Your task to perform on an android device: read, delete, or share a saved page in the chrome app Image 0: 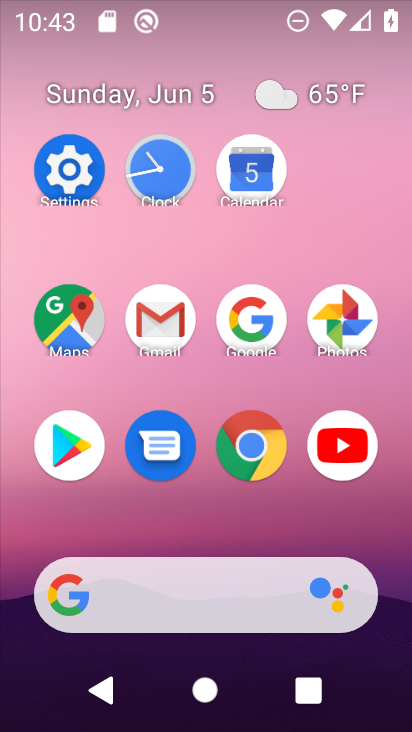
Step 0: click (252, 442)
Your task to perform on an android device: read, delete, or share a saved page in the chrome app Image 1: 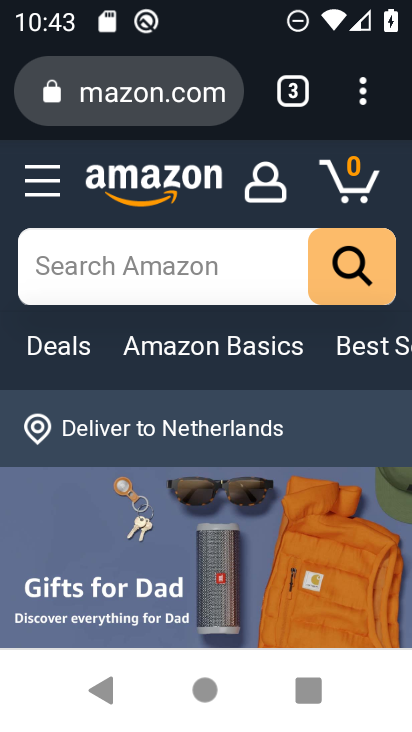
Step 1: click (372, 99)
Your task to perform on an android device: read, delete, or share a saved page in the chrome app Image 2: 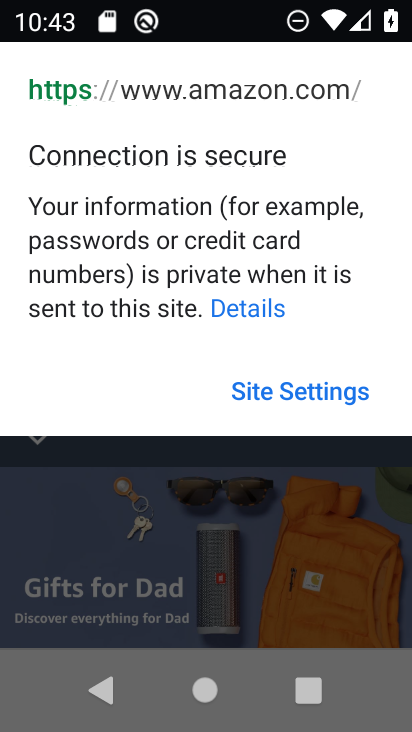
Step 2: click (381, 518)
Your task to perform on an android device: read, delete, or share a saved page in the chrome app Image 3: 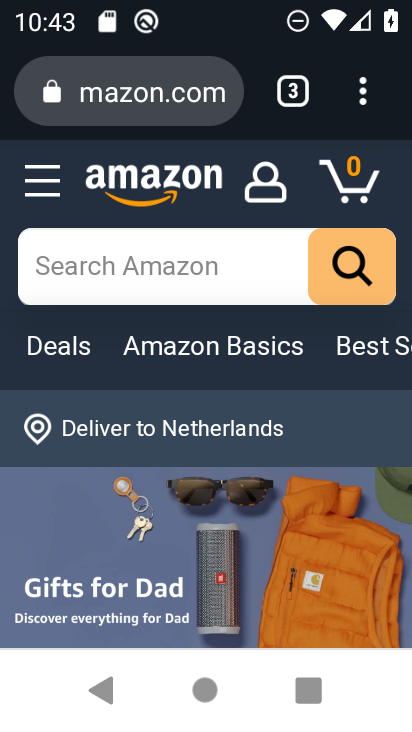
Step 3: click (366, 93)
Your task to perform on an android device: read, delete, or share a saved page in the chrome app Image 4: 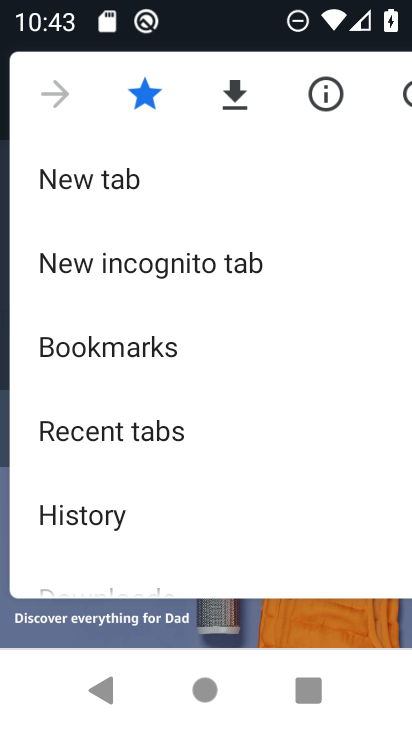
Step 4: drag from (155, 512) to (214, 210)
Your task to perform on an android device: read, delete, or share a saved page in the chrome app Image 5: 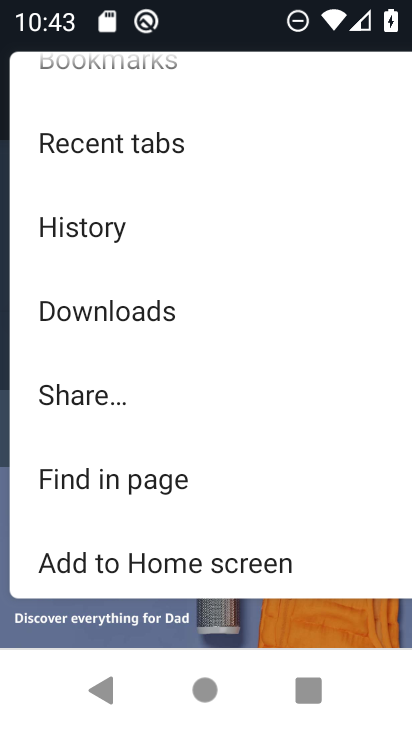
Step 5: click (180, 314)
Your task to perform on an android device: read, delete, or share a saved page in the chrome app Image 6: 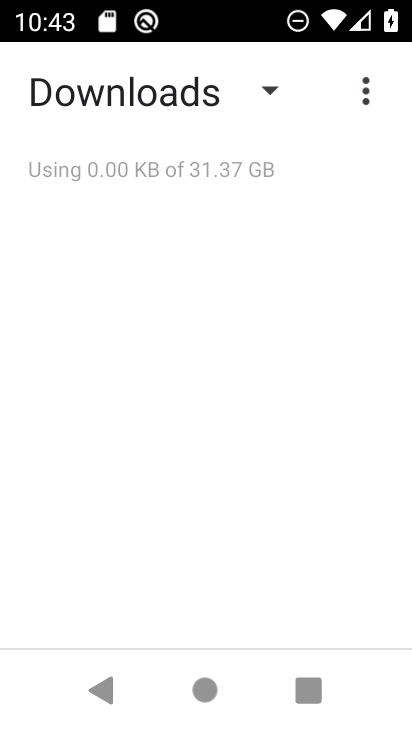
Step 6: task complete